Your task to perform on an android device: Go to Google maps Image 0: 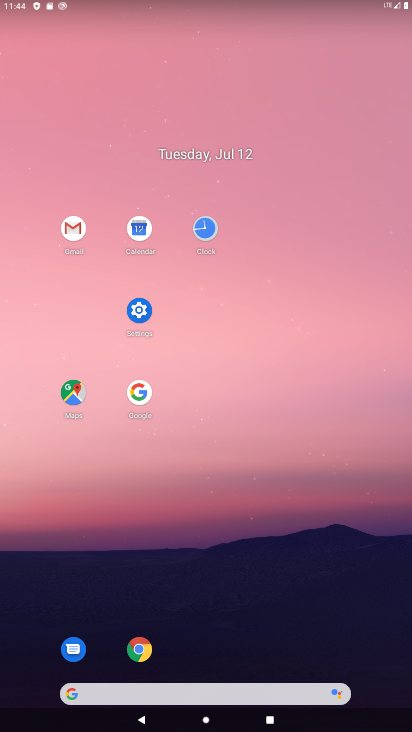
Step 0: click (69, 386)
Your task to perform on an android device: Go to Google maps Image 1: 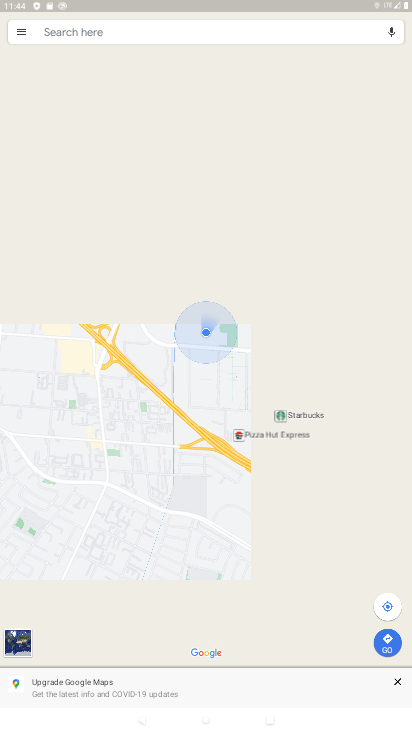
Step 1: task complete